Your task to perform on an android device: toggle sleep mode Image 0: 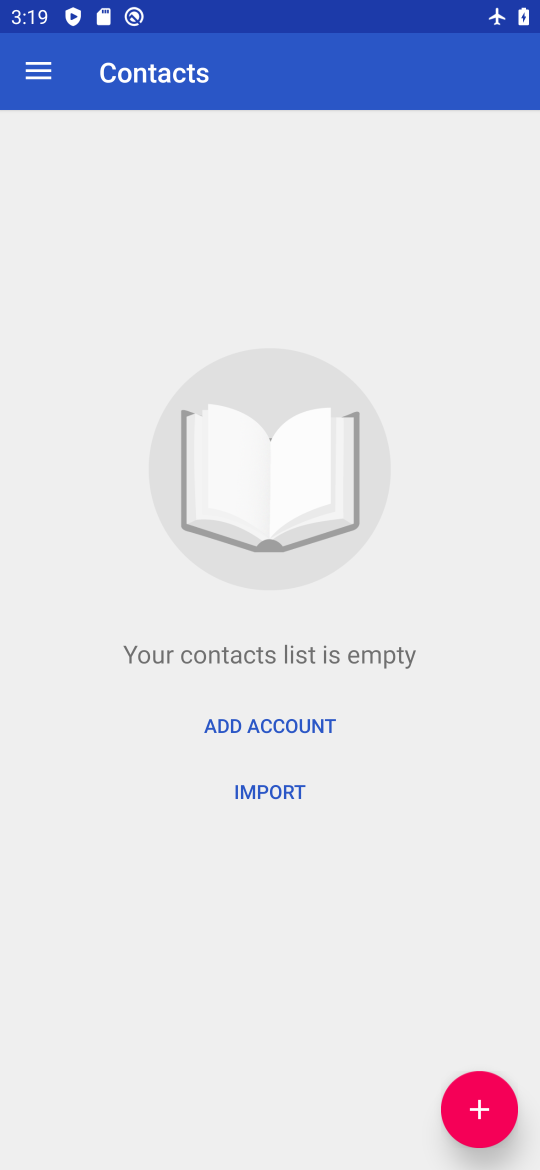
Step 0: press home button
Your task to perform on an android device: toggle sleep mode Image 1: 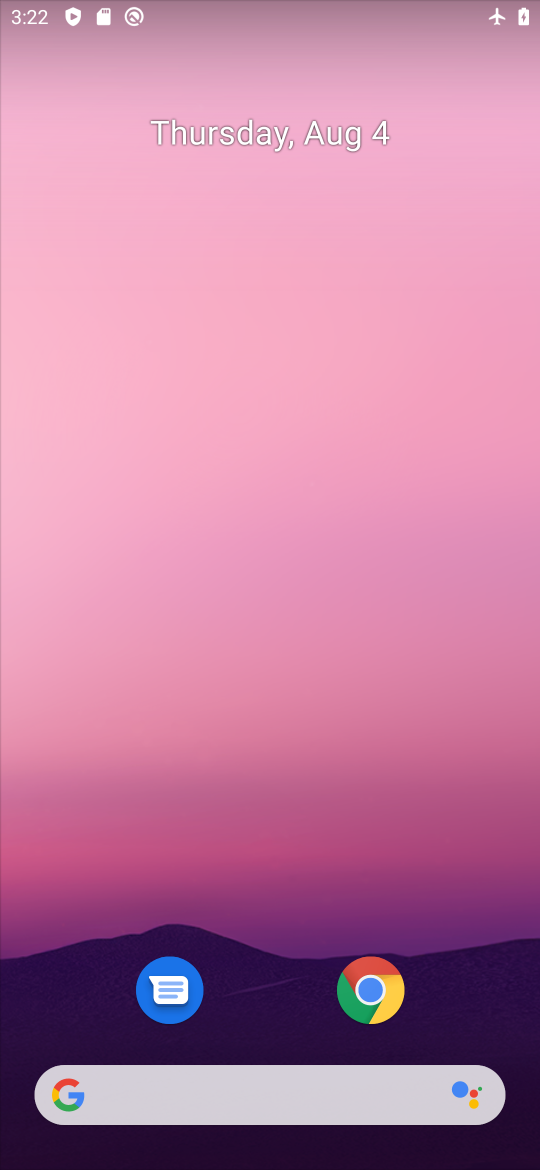
Step 1: drag from (295, 1033) to (353, 67)
Your task to perform on an android device: toggle sleep mode Image 2: 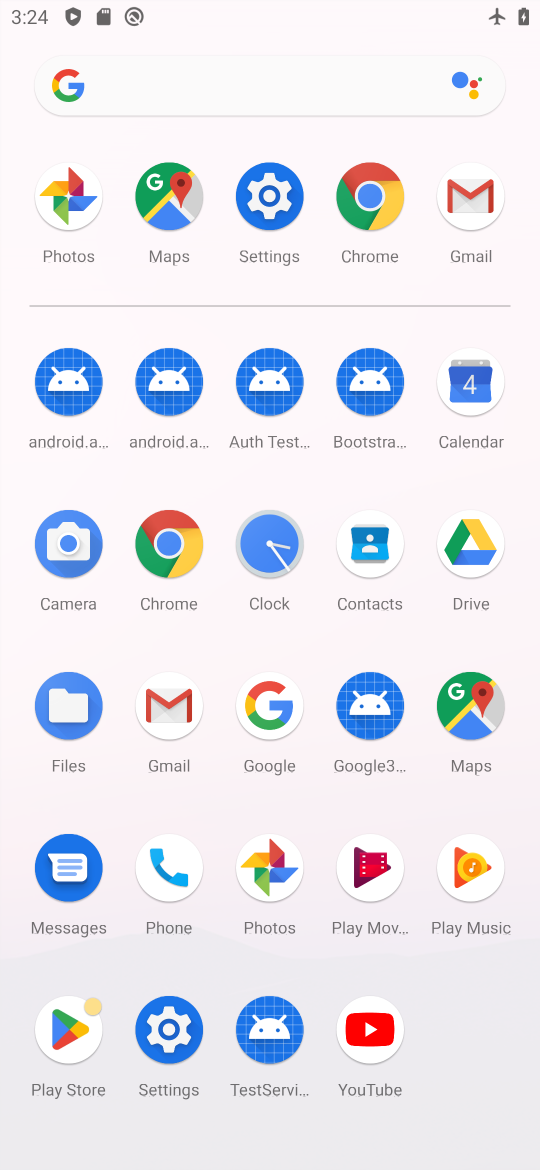
Step 2: click (264, 238)
Your task to perform on an android device: toggle sleep mode Image 3: 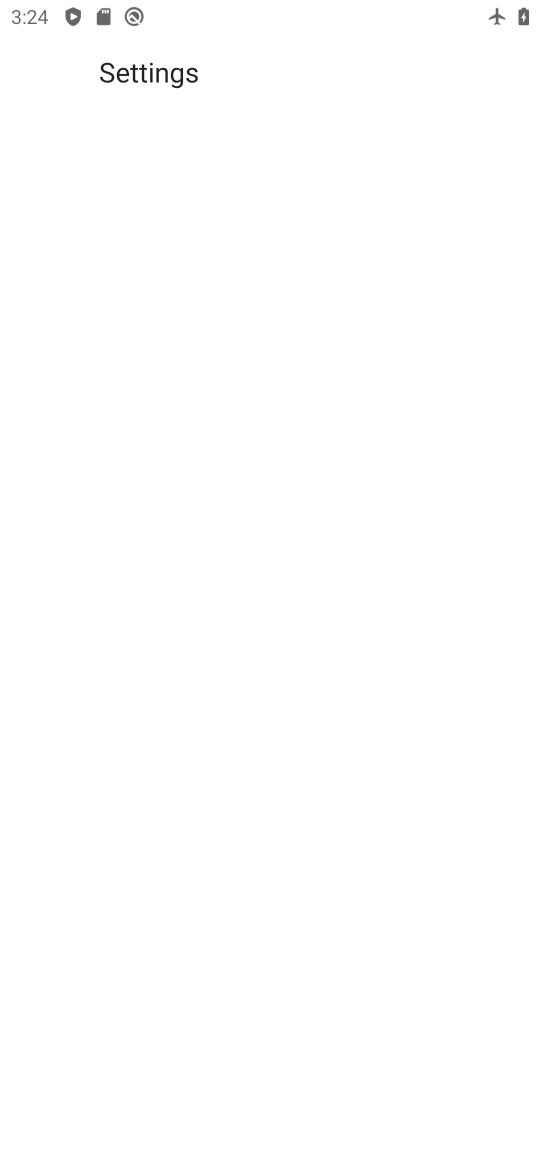
Step 3: task complete